Your task to perform on an android device: set an alarm Image 0: 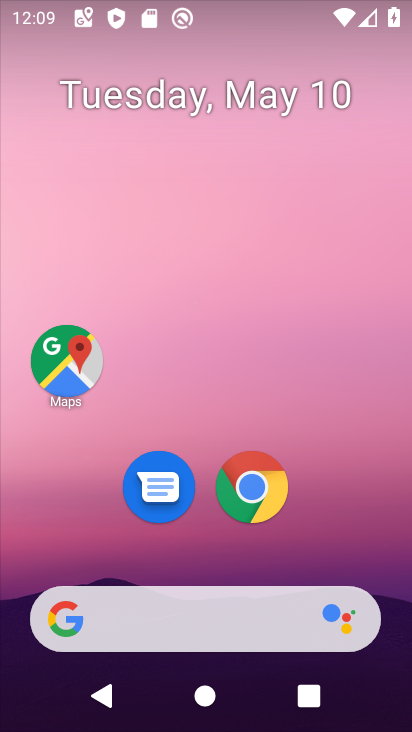
Step 0: drag from (311, 567) to (319, 259)
Your task to perform on an android device: set an alarm Image 1: 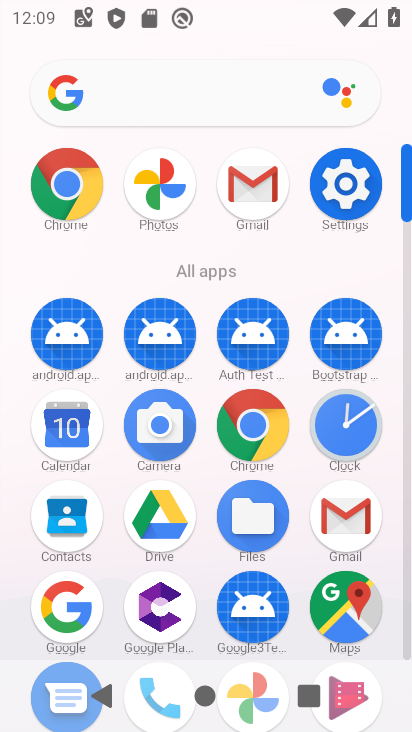
Step 1: click (354, 425)
Your task to perform on an android device: set an alarm Image 2: 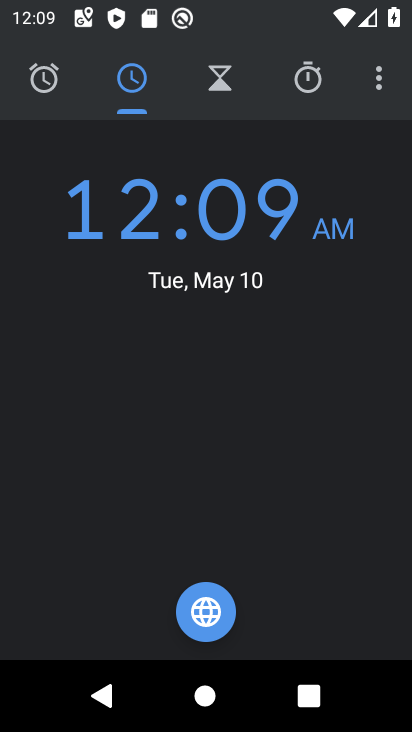
Step 2: click (30, 62)
Your task to perform on an android device: set an alarm Image 3: 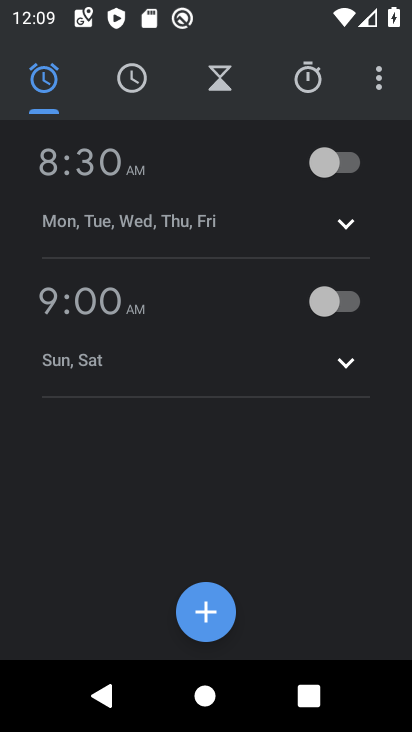
Step 3: click (318, 155)
Your task to perform on an android device: set an alarm Image 4: 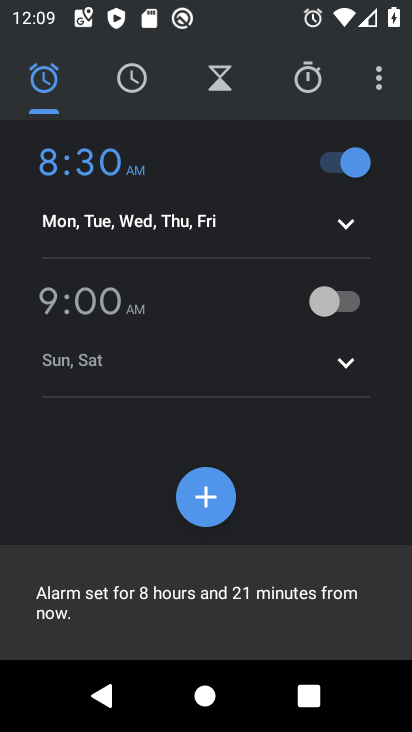
Step 4: task complete